Your task to perform on an android device: Open settings Image 0: 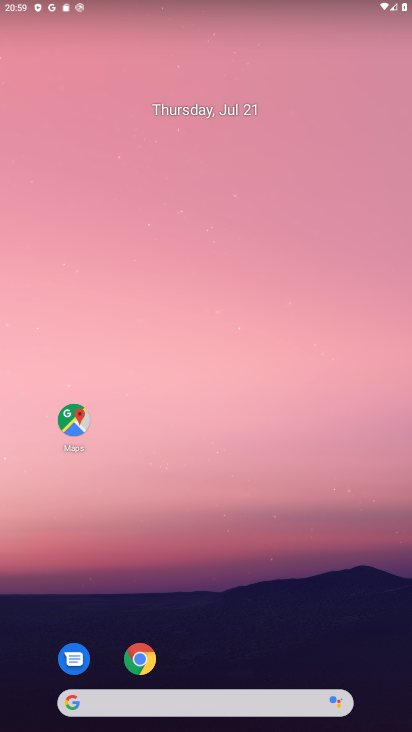
Step 0: drag from (379, 656) to (400, 2)
Your task to perform on an android device: Open settings Image 1: 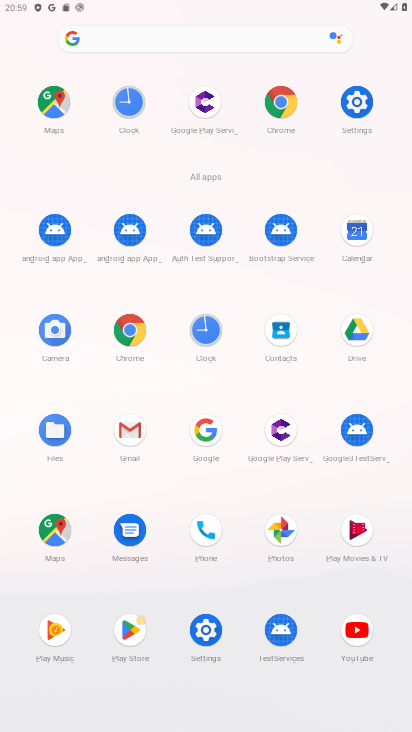
Step 1: click (345, 108)
Your task to perform on an android device: Open settings Image 2: 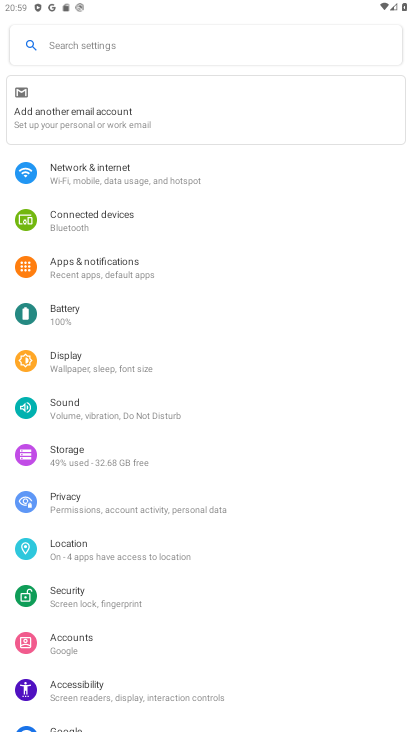
Step 2: task complete